Your task to perform on an android device: set an alarm Image 0: 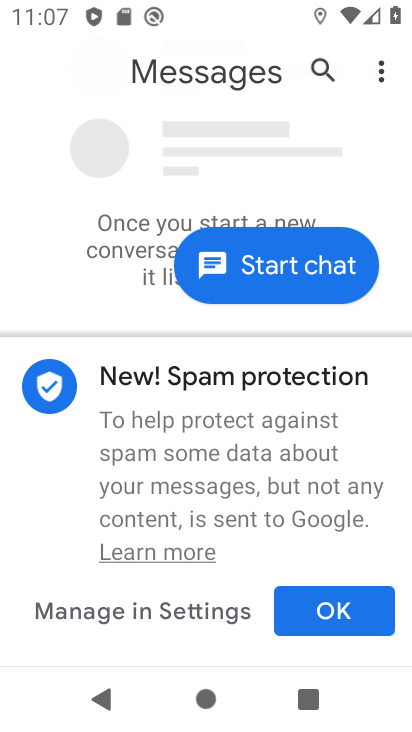
Step 0: press home button
Your task to perform on an android device: set an alarm Image 1: 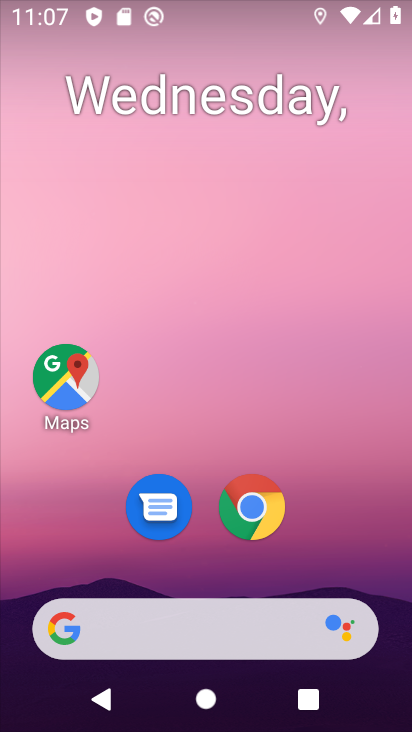
Step 1: drag from (347, 538) to (340, 194)
Your task to perform on an android device: set an alarm Image 2: 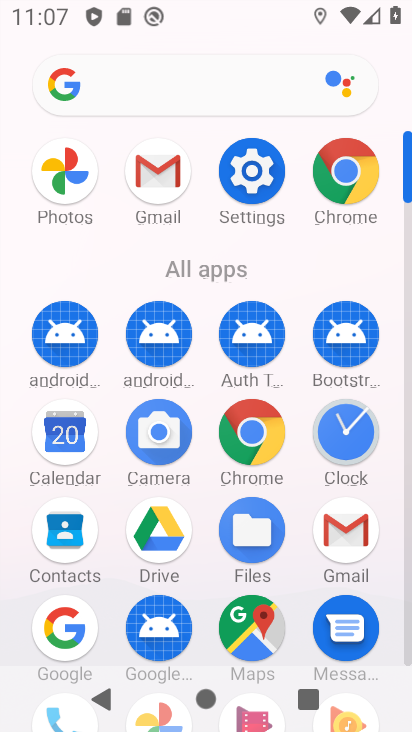
Step 2: click (352, 436)
Your task to perform on an android device: set an alarm Image 3: 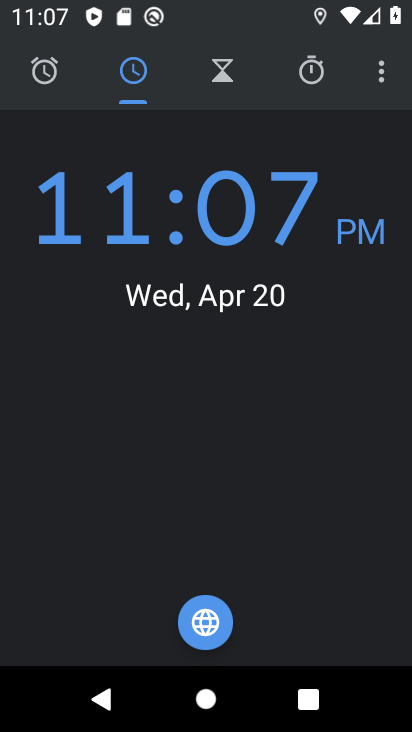
Step 3: click (38, 74)
Your task to perform on an android device: set an alarm Image 4: 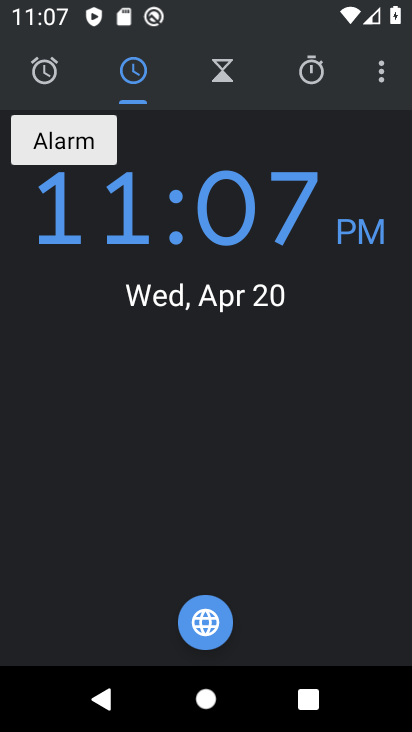
Step 4: click (38, 74)
Your task to perform on an android device: set an alarm Image 5: 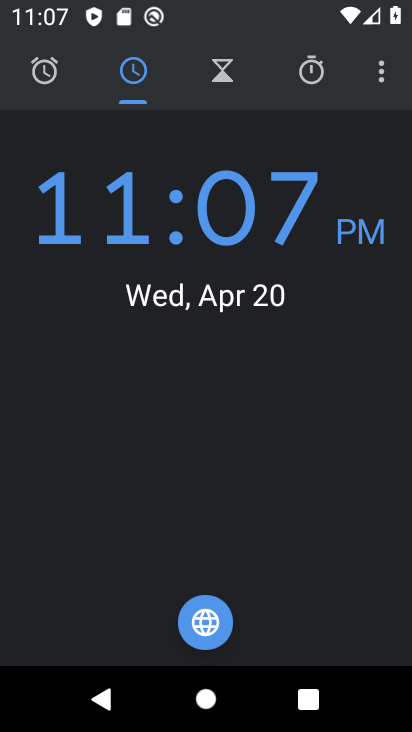
Step 5: click (38, 74)
Your task to perform on an android device: set an alarm Image 6: 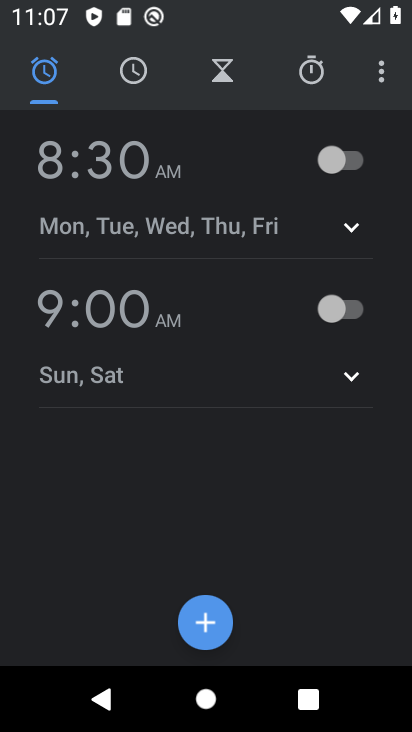
Step 6: click (188, 620)
Your task to perform on an android device: set an alarm Image 7: 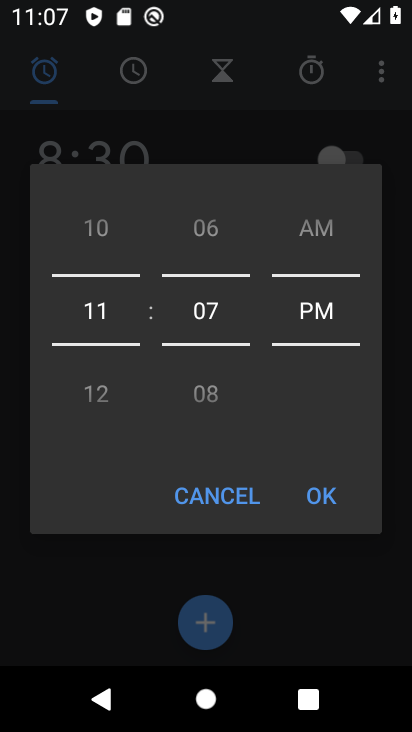
Step 7: click (329, 497)
Your task to perform on an android device: set an alarm Image 8: 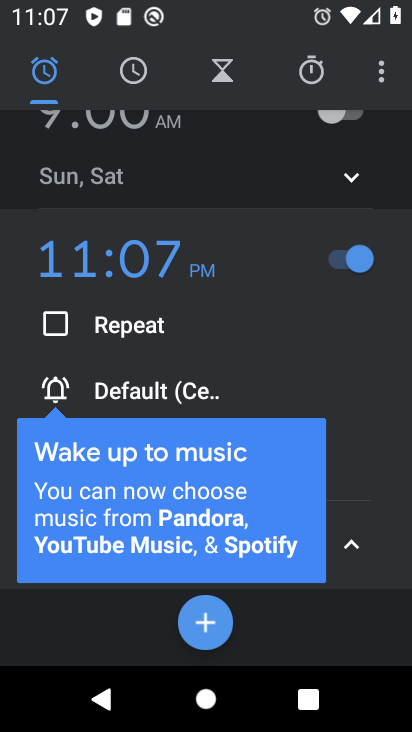
Step 8: task complete